Your task to perform on an android device: turn off location history Image 0: 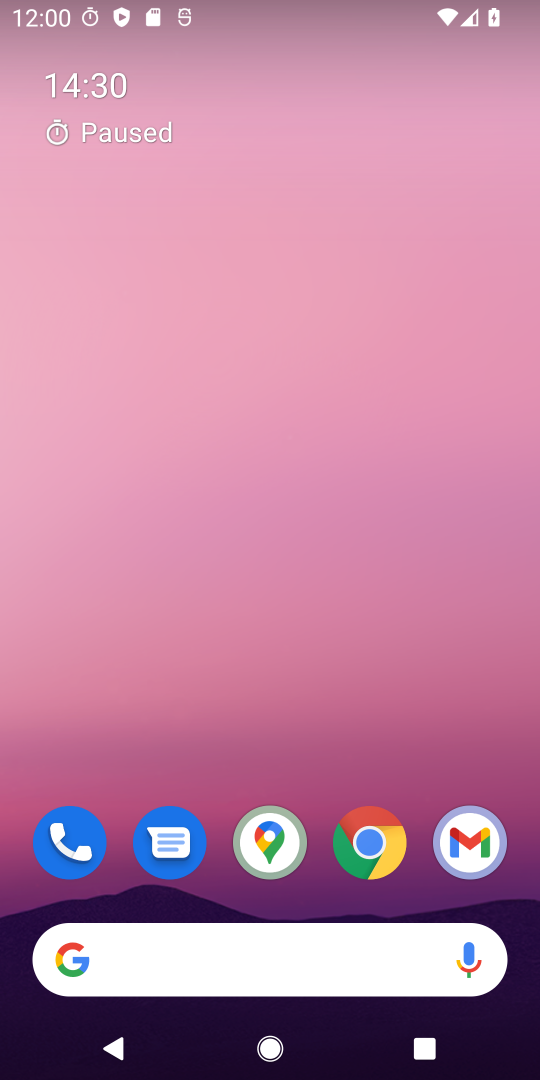
Step 0: drag from (340, 99) to (413, 205)
Your task to perform on an android device: turn off location history Image 1: 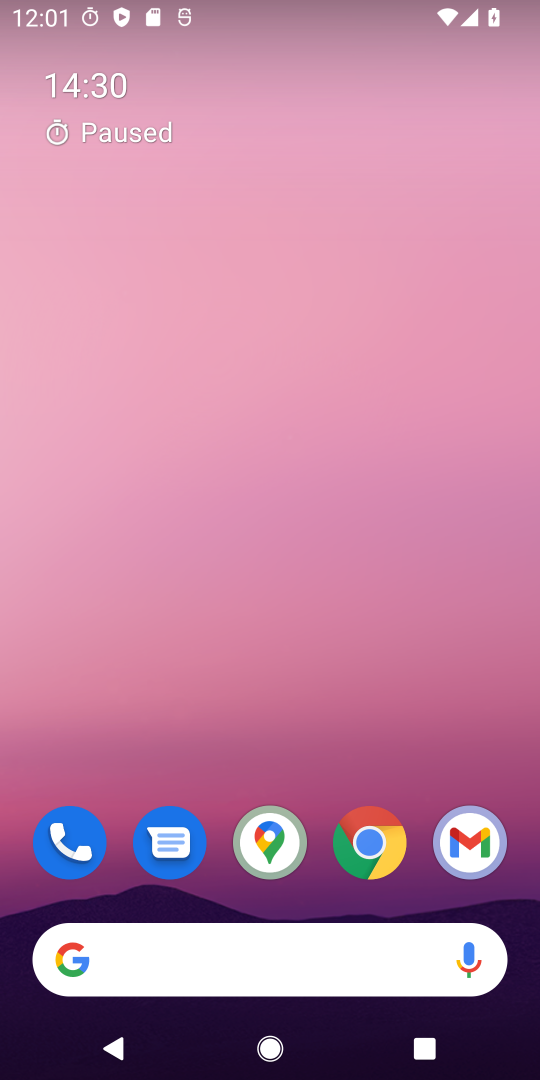
Step 1: drag from (230, 877) to (288, 281)
Your task to perform on an android device: turn off location history Image 2: 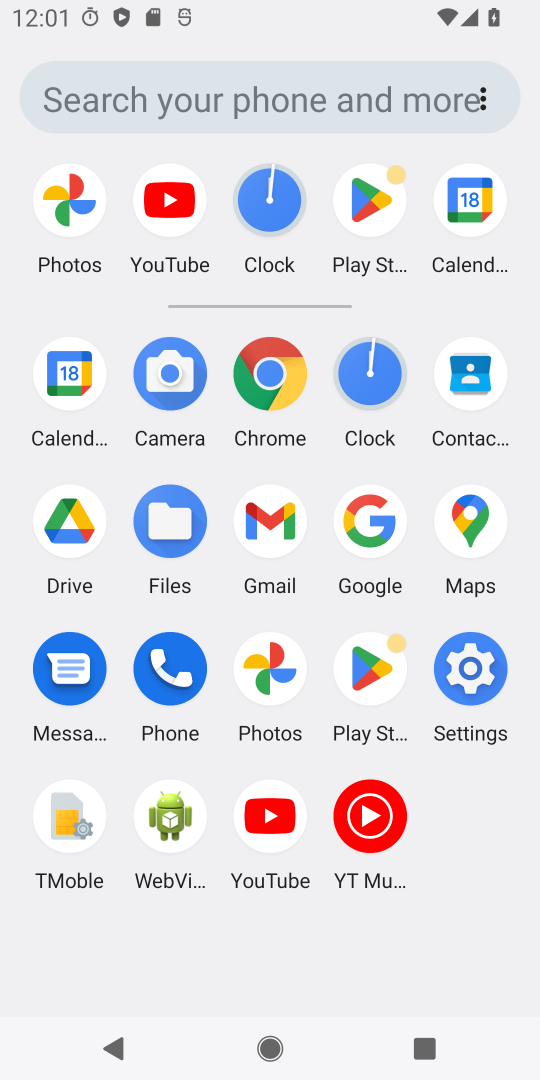
Step 2: click (492, 658)
Your task to perform on an android device: turn off location history Image 3: 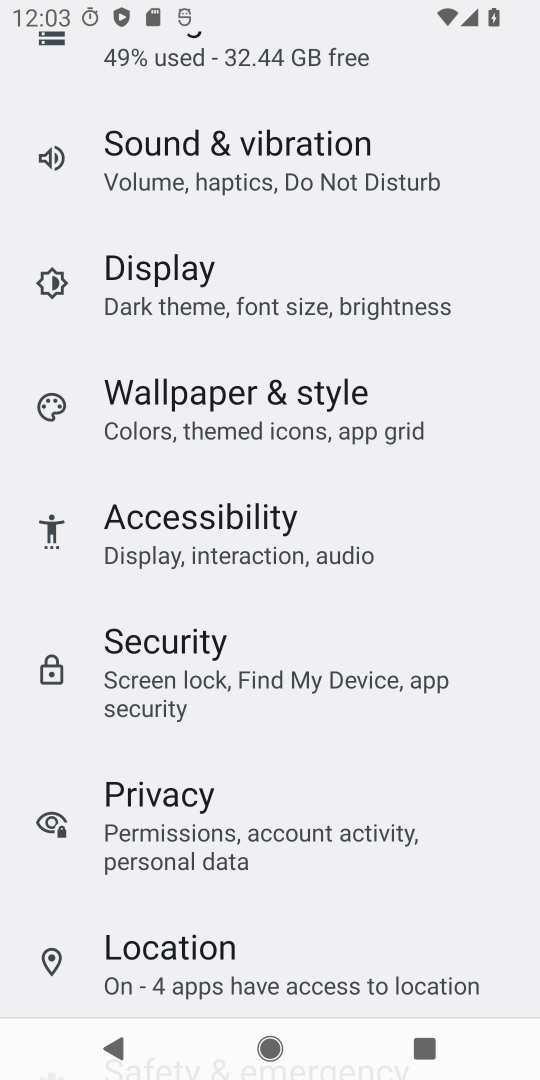
Step 3: click (160, 971)
Your task to perform on an android device: turn off location history Image 4: 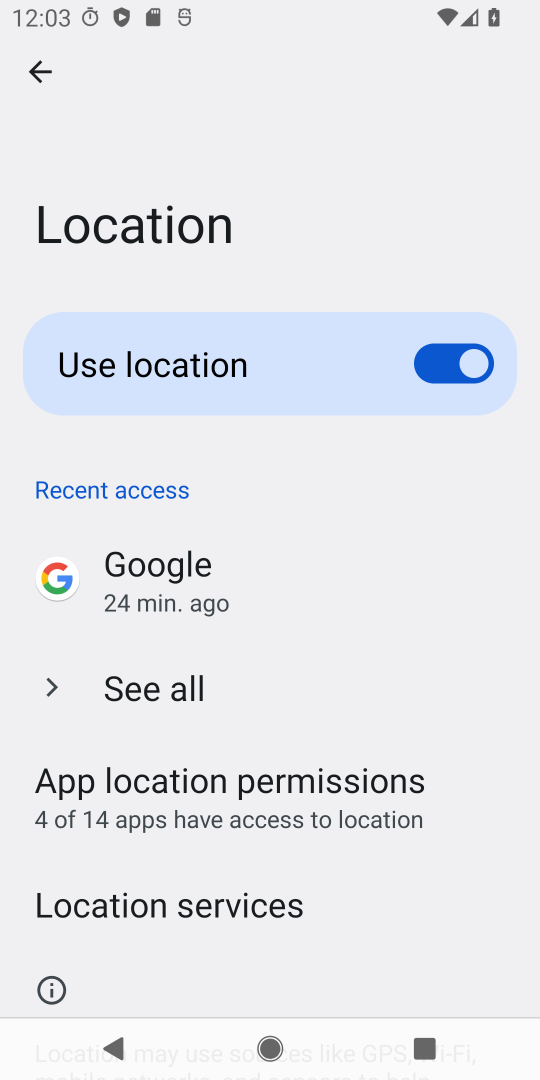
Step 4: drag from (168, 916) to (176, 274)
Your task to perform on an android device: turn off location history Image 5: 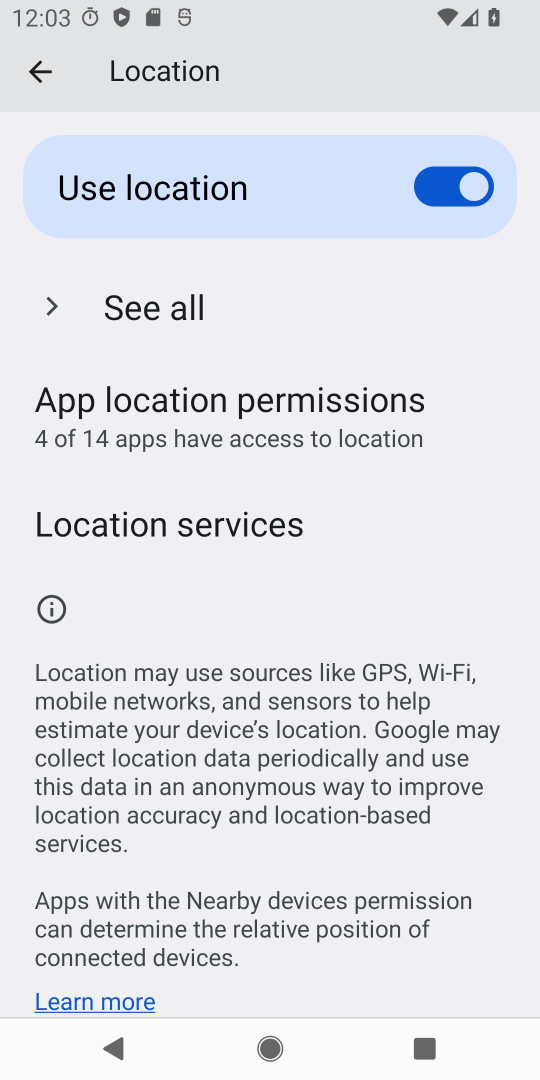
Step 5: click (239, 520)
Your task to perform on an android device: turn off location history Image 6: 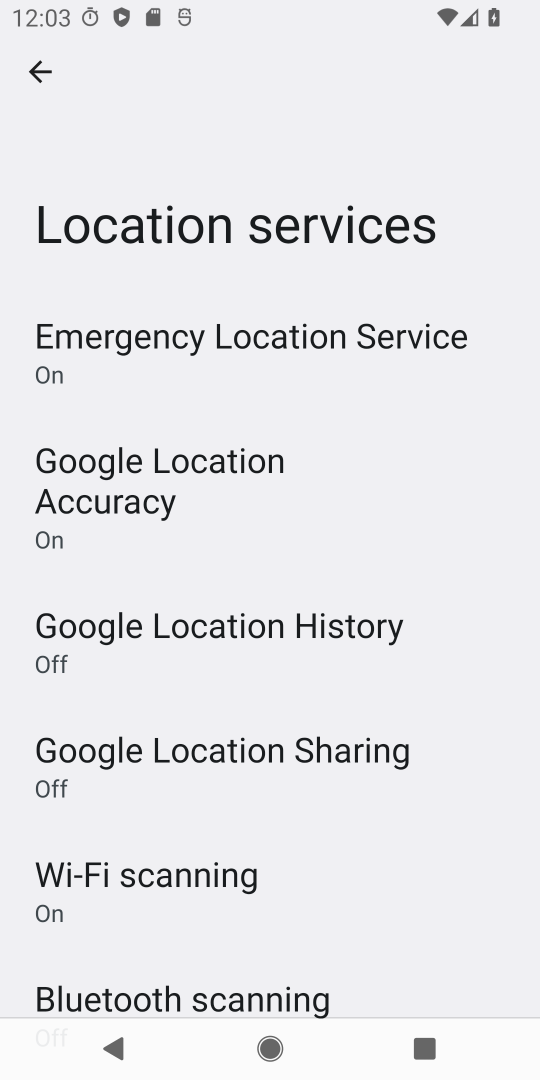
Step 6: click (153, 630)
Your task to perform on an android device: turn off location history Image 7: 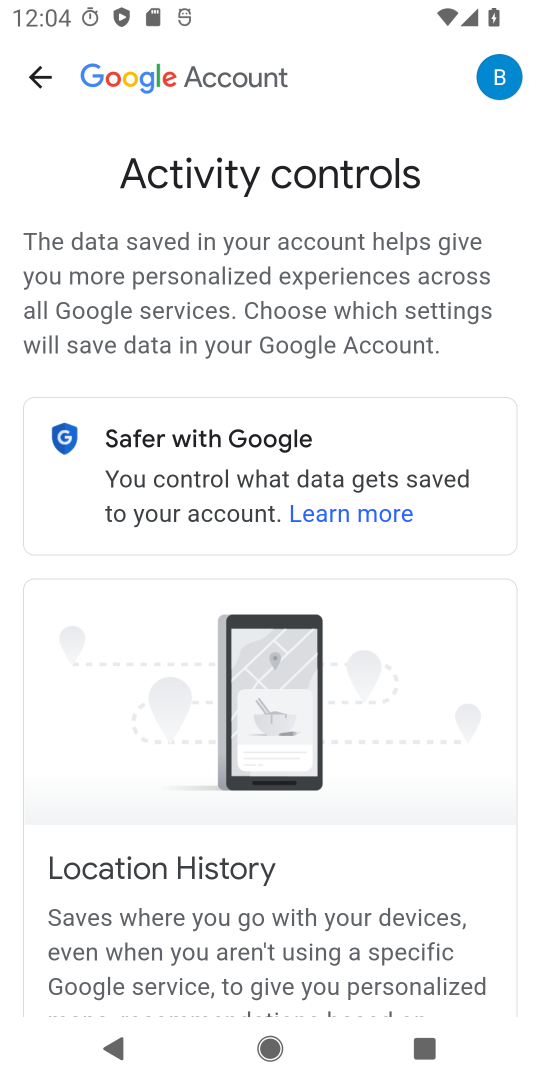
Step 7: task complete